Your task to perform on an android device: Open wifi settings Image 0: 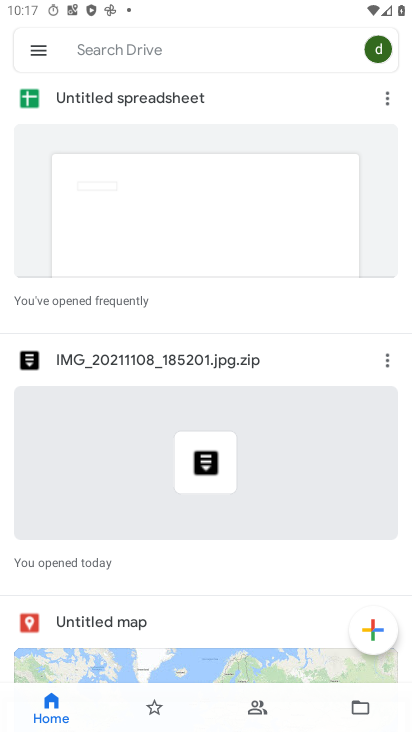
Step 0: press home button
Your task to perform on an android device: Open wifi settings Image 1: 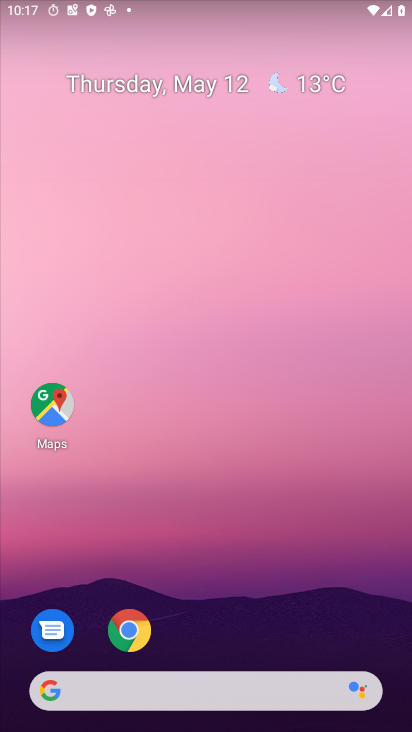
Step 1: drag from (223, 685) to (183, 239)
Your task to perform on an android device: Open wifi settings Image 2: 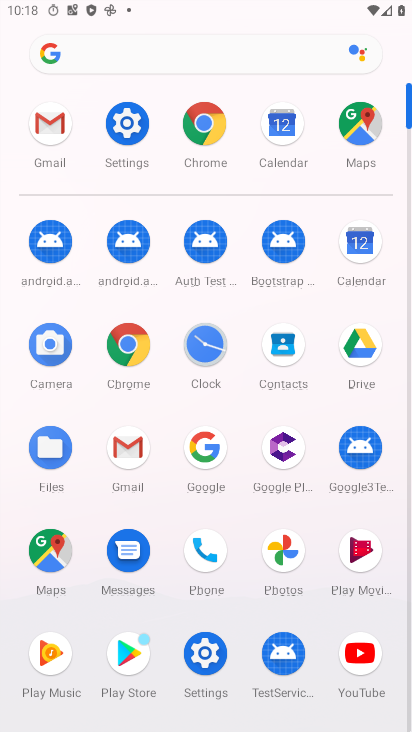
Step 2: click (130, 141)
Your task to perform on an android device: Open wifi settings Image 3: 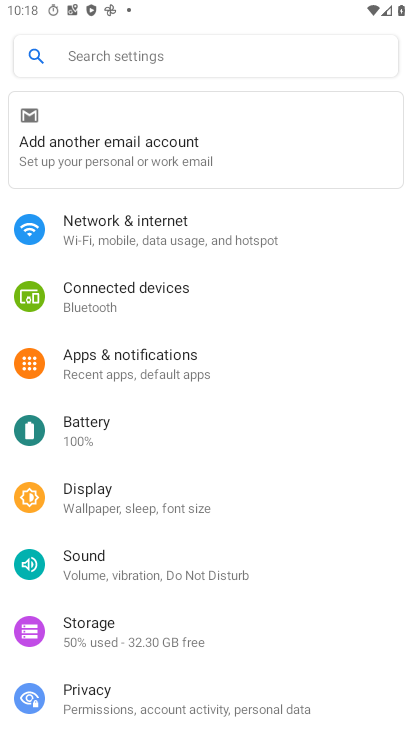
Step 3: click (116, 246)
Your task to perform on an android device: Open wifi settings Image 4: 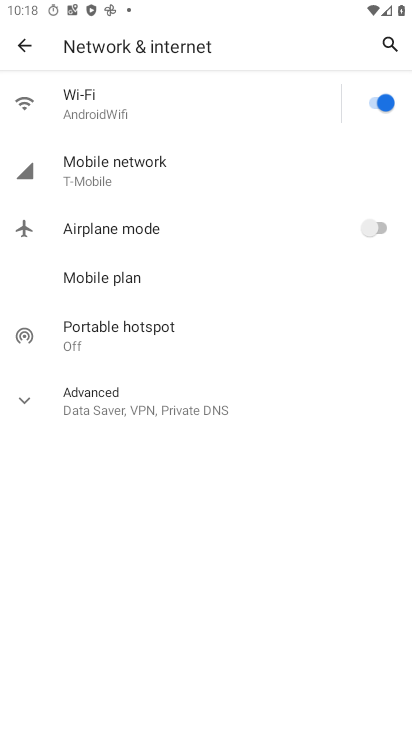
Step 4: click (112, 105)
Your task to perform on an android device: Open wifi settings Image 5: 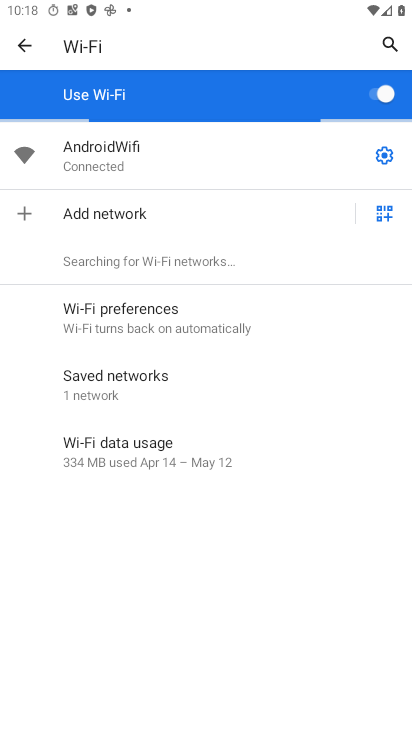
Step 5: task complete